Your task to perform on an android device: Turn on the flashlight Image 0: 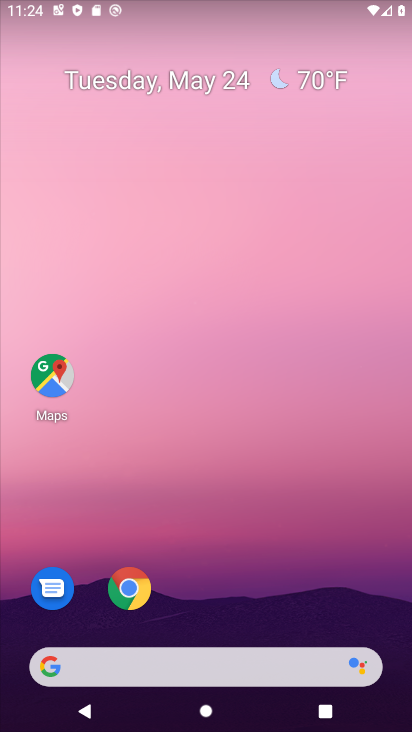
Step 0: drag from (209, 616) to (293, 50)
Your task to perform on an android device: Turn on the flashlight Image 1: 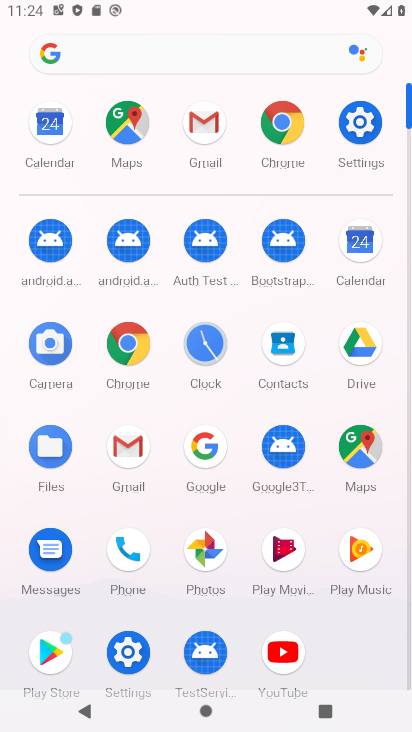
Step 1: click (357, 117)
Your task to perform on an android device: Turn on the flashlight Image 2: 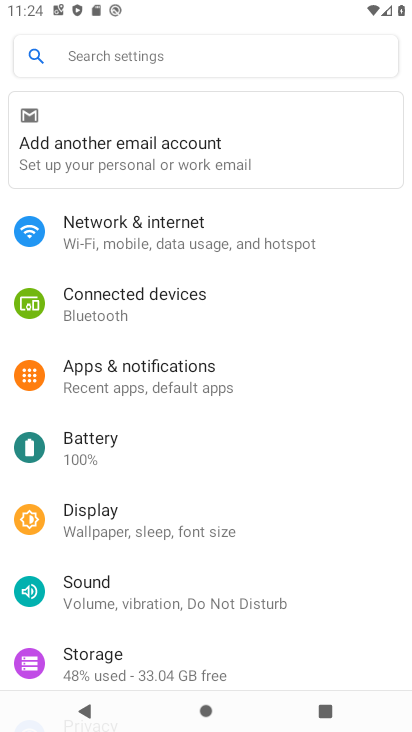
Step 2: click (113, 55)
Your task to perform on an android device: Turn on the flashlight Image 3: 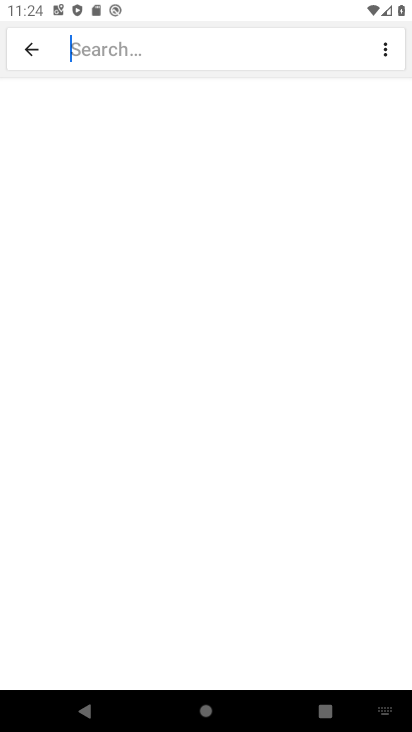
Step 3: type "flashlight"
Your task to perform on an android device: Turn on the flashlight Image 4: 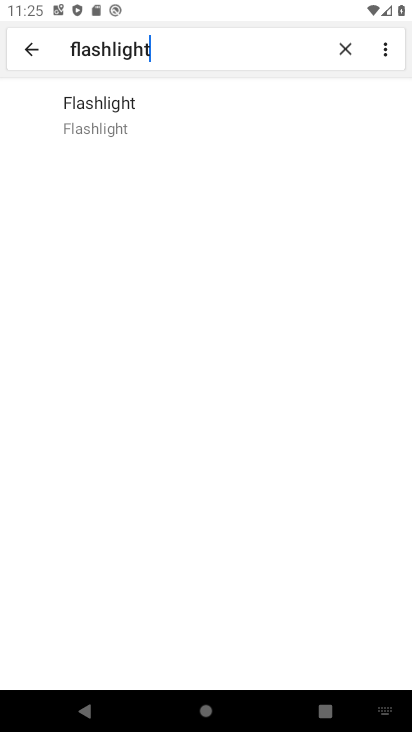
Step 4: click (143, 115)
Your task to perform on an android device: Turn on the flashlight Image 5: 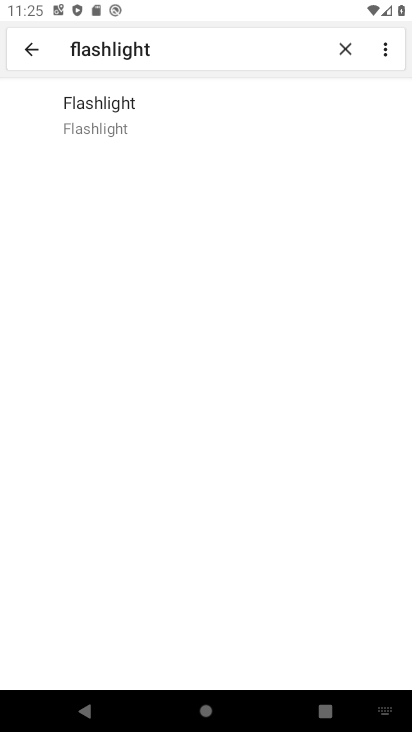
Step 5: click (134, 113)
Your task to perform on an android device: Turn on the flashlight Image 6: 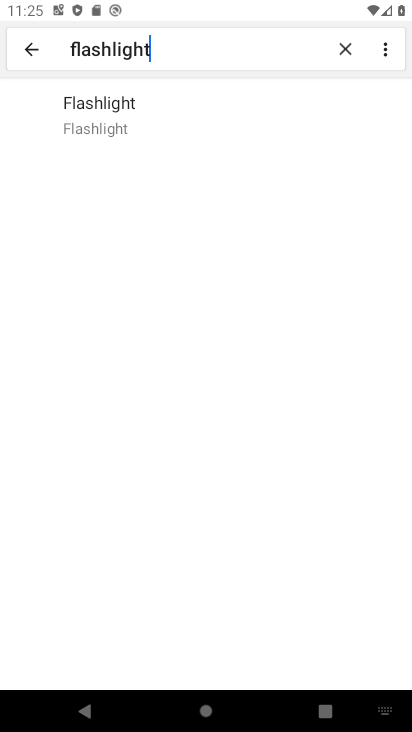
Step 6: task complete